Your task to perform on an android device: Open Chrome and go to settings Image 0: 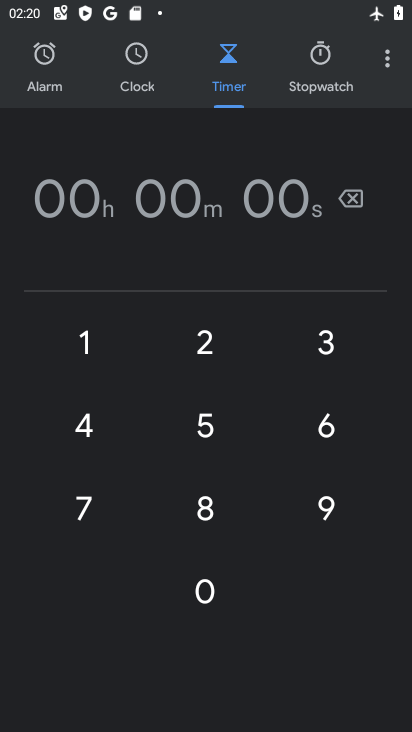
Step 0: press home button
Your task to perform on an android device: Open Chrome and go to settings Image 1: 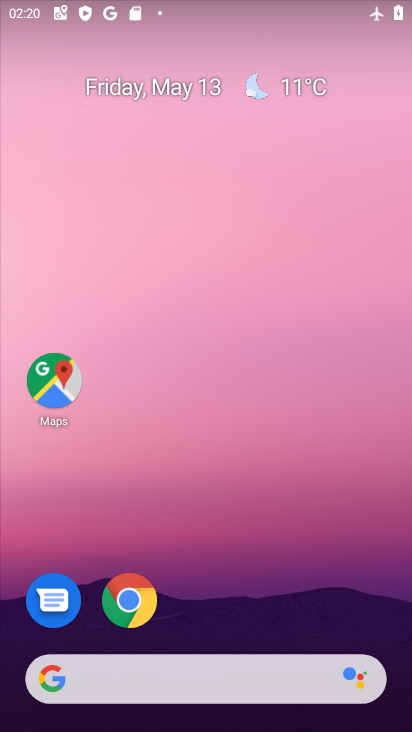
Step 1: drag from (165, 630) to (207, 172)
Your task to perform on an android device: Open Chrome and go to settings Image 2: 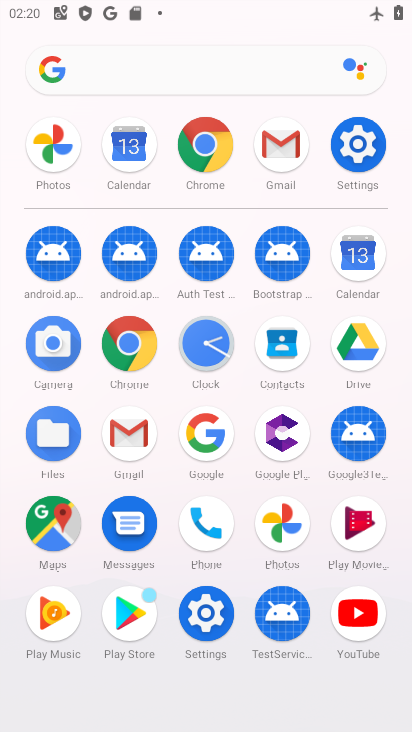
Step 2: click (207, 142)
Your task to perform on an android device: Open Chrome and go to settings Image 3: 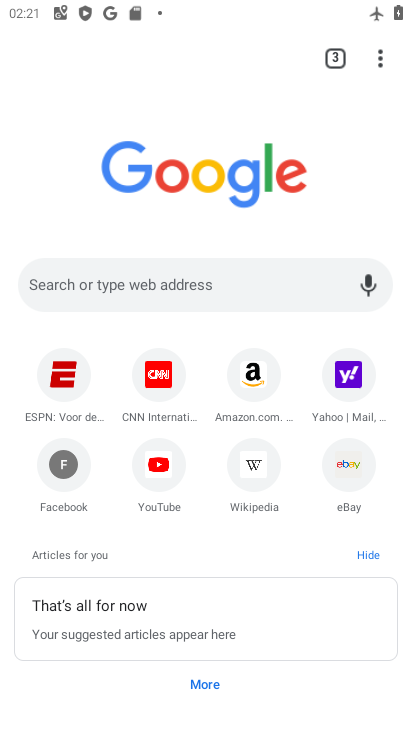
Step 3: task complete